Your task to perform on an android device: snooze an email in the gmail app Image 0: 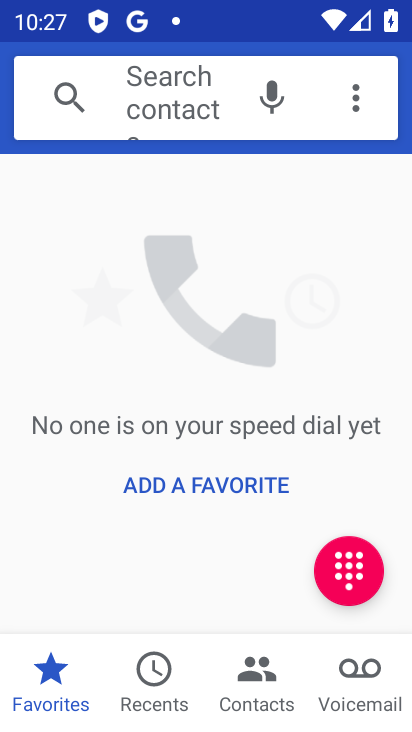
Step 0: press home button
Your task to perform on an android device: snooze an email in the gmail app Image 1: 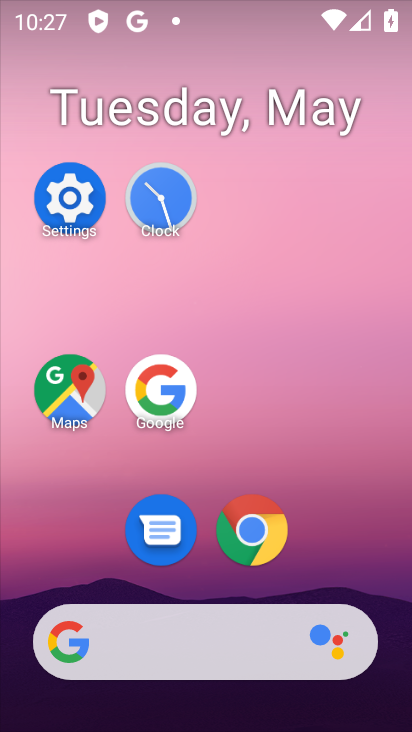
Step 1: drag from (300, 586) to (326, 154)
Your task to perform on an android device: snooze an email in the gmail app Image 2: 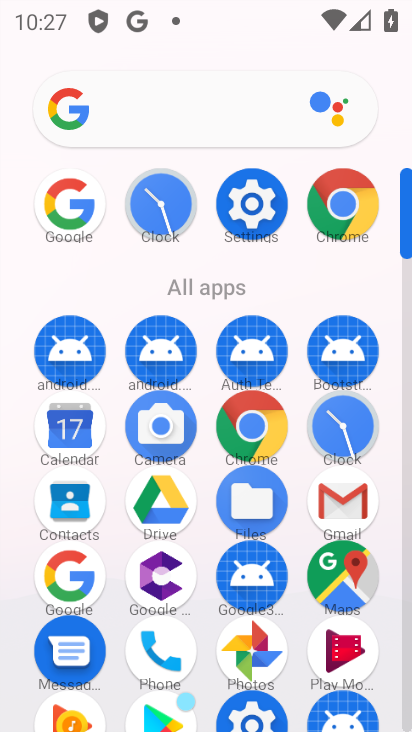
Step 2: drag from (330, 496) to (106, 303)
Your task to perform on an android device: snooze an email in the gmail app Image 3: 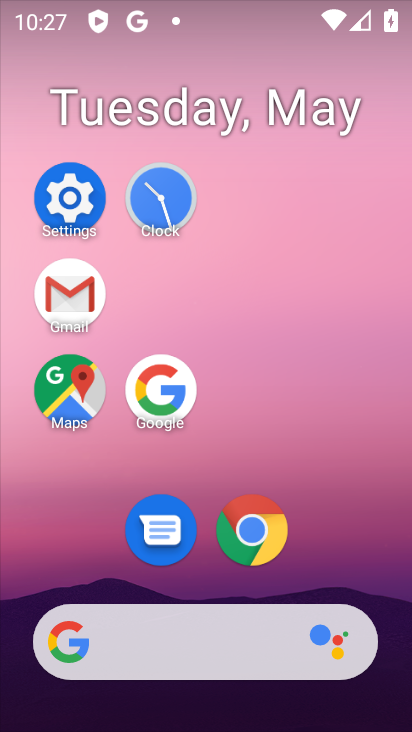
Step 3: click (86, 286)
Your task to perform on an android device: snooze an email in the gmail app Image 4: 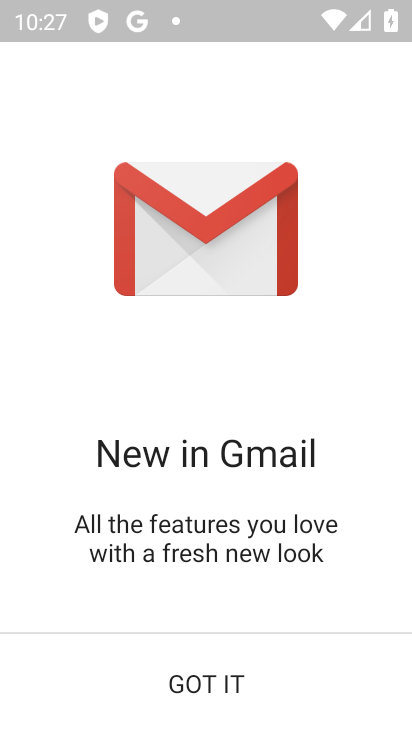
Step 4: click (248, 692)
Your task to perform on an android device: snooze an email in the gmail app Image 5: 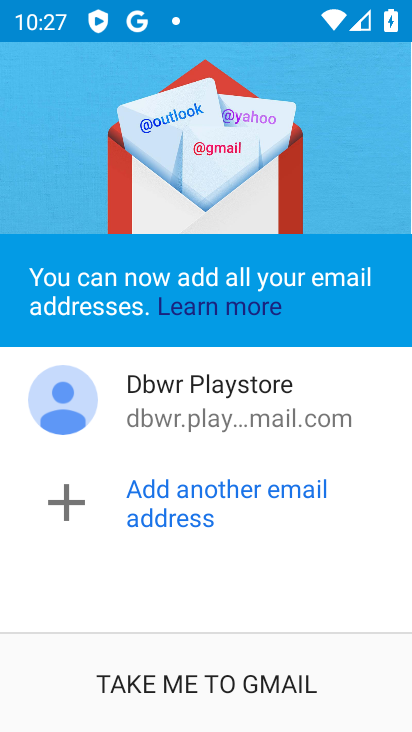
Step 5: click (276, 662)
Your task to perform on an android device: snooze an email in the gmail app Image 6: 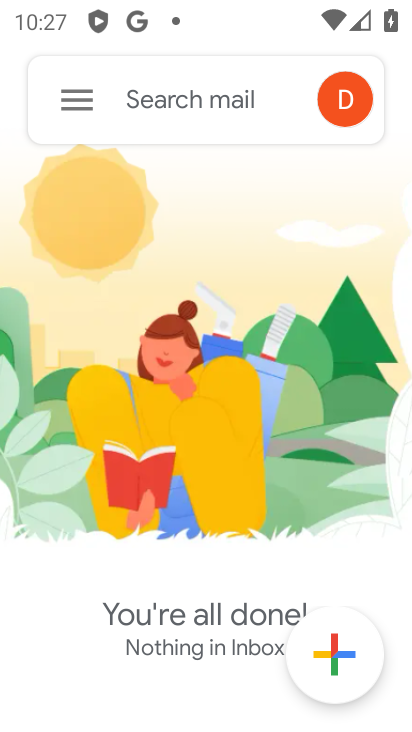
Step 6: click (115, 91)
Your task to perform on an android device: snooze an email in the gmail app Image 7: 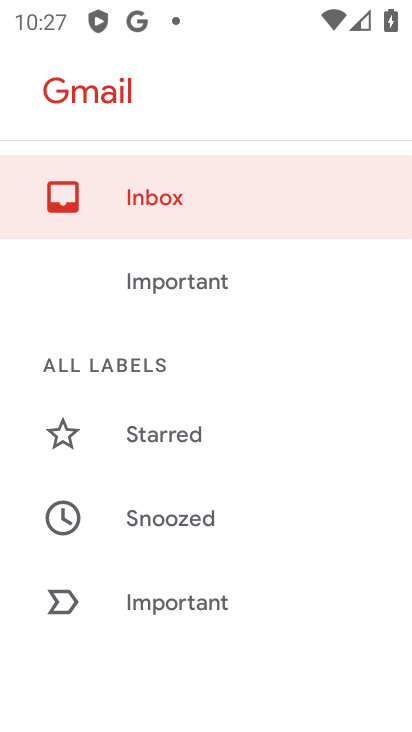
Step 7: drag from (257, 523) to (253, 174)
Your task to perform on an android device: snooze an email in the gmail app Image 8: 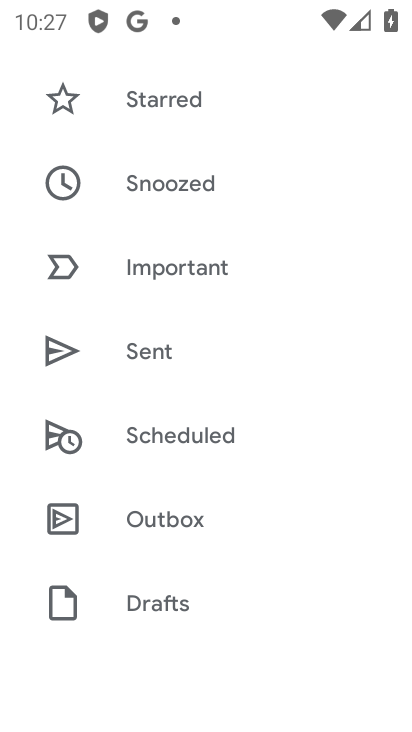
Step 8: drag from (204, 489) to (206, 177)
Your task to perform on an android device: snooze an email in the gmail app Image 9: 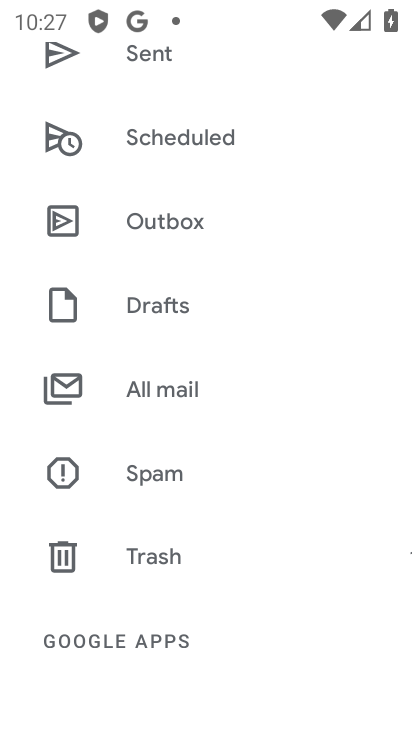
Step 9: click (188, 386)
Your task to perform on an android device: snooze an email in the gmail app Image 10: 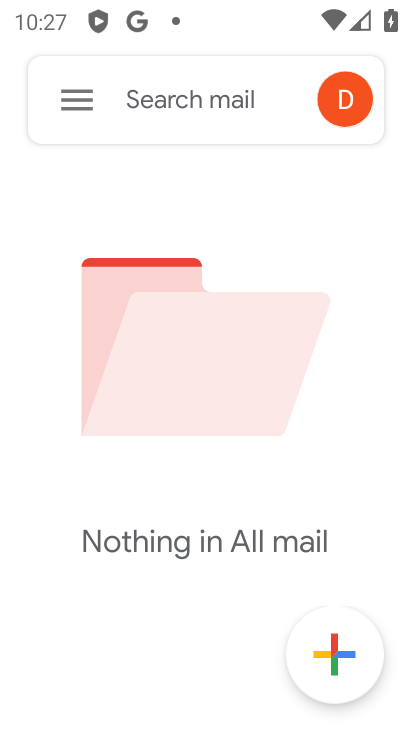
Step 10: task complete